Your task to perform on an android device: star an email in the gmail app Image 0: 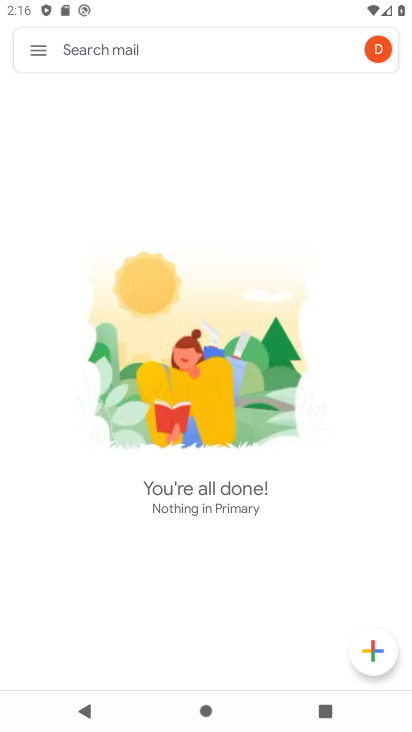
Step 0: press home button
Your task to perform on an android device: star an email in the gmail app Image 1: 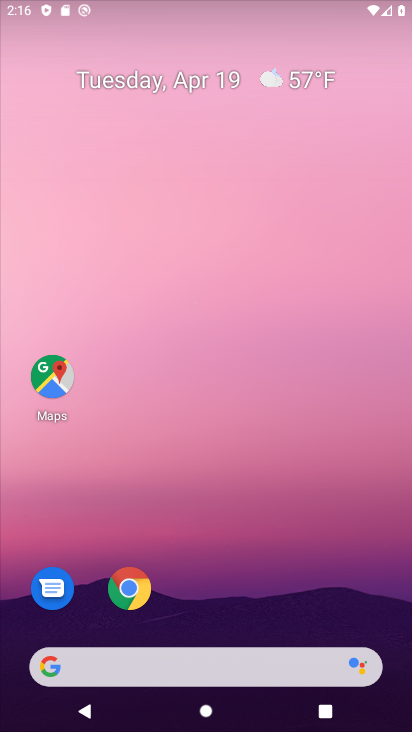
Step 1: drag from (332, 516) to (356, 104)
Your task to perform on an android device: star an email in the gmail app Image 2: 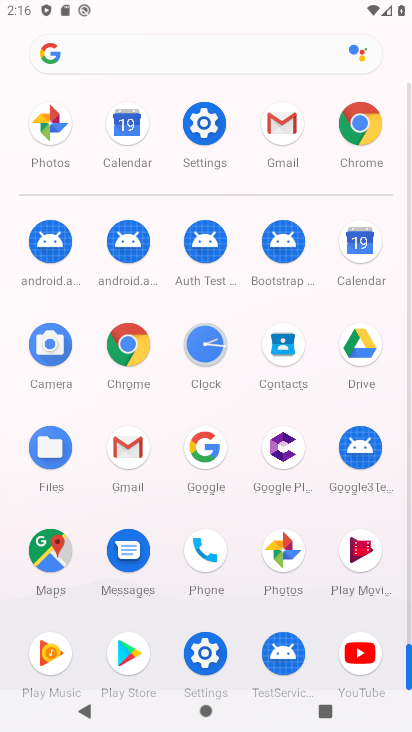
Step 2: click (273, 119)
Your task to perform on an android device: star an email in the gmail app Image 3: 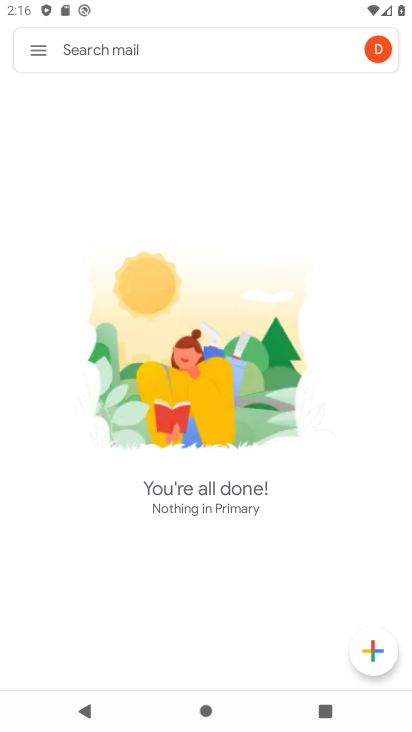
Step 3: click (41, 38)
Your task to perform on an android device: star an email in the gmail app Image 4: 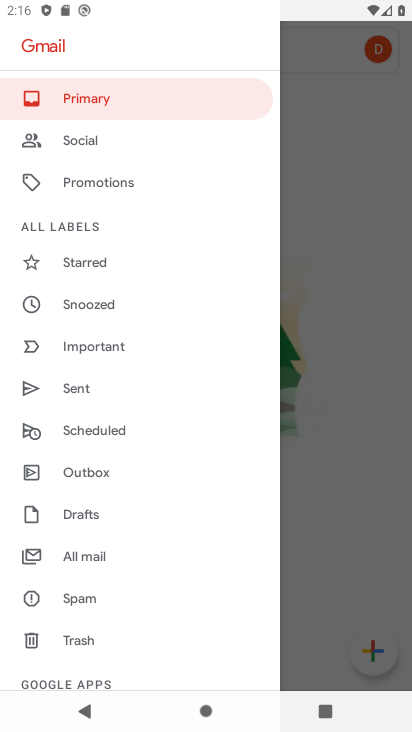
Step 4: click (118, 558)
Your task to perform on an android device: star an email in the gmail app Image 5: 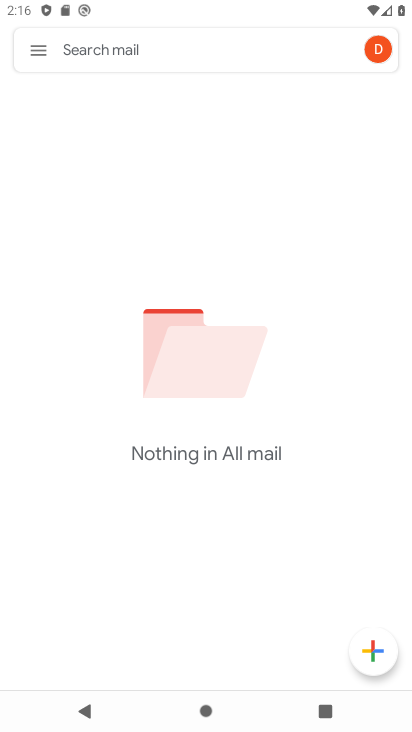
Step 5: task complete